Your task to perform on an android device: Go to internet settings Image 0: 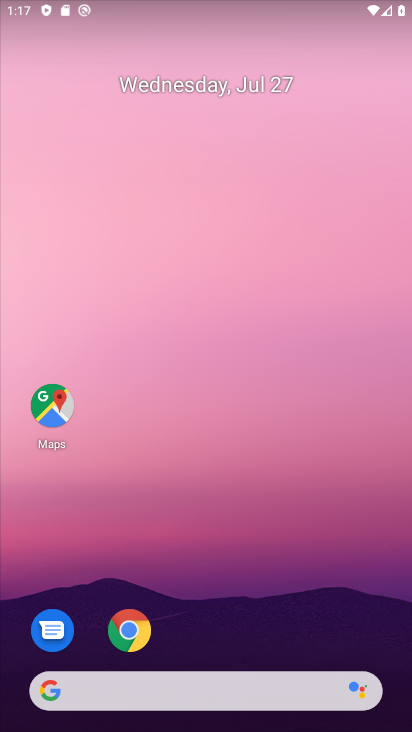
Step 0: drag from (193, 678) to (215, 6)
Your task to perform on an android device: Go to internet settings Image 1: 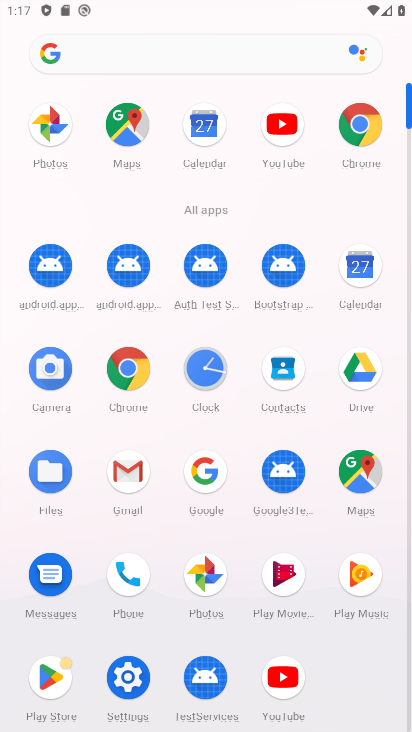
Step 1: click (130, 683)
Your task to perform on an android device: Go to internet settings Image 2: 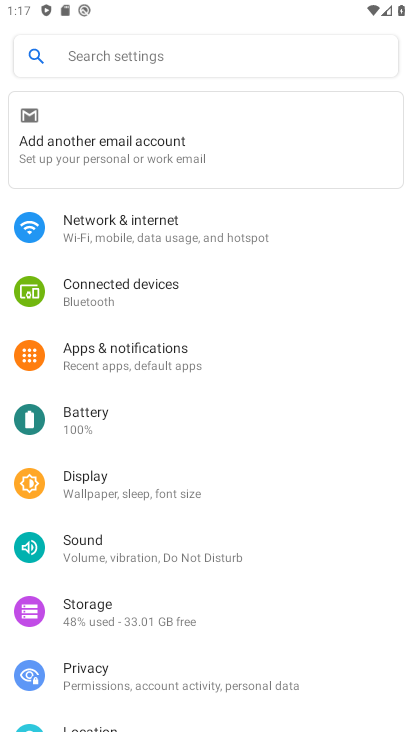
Step 2: click (111, 243)
Your task to perform on an android device: Go to internet settings Image 3: 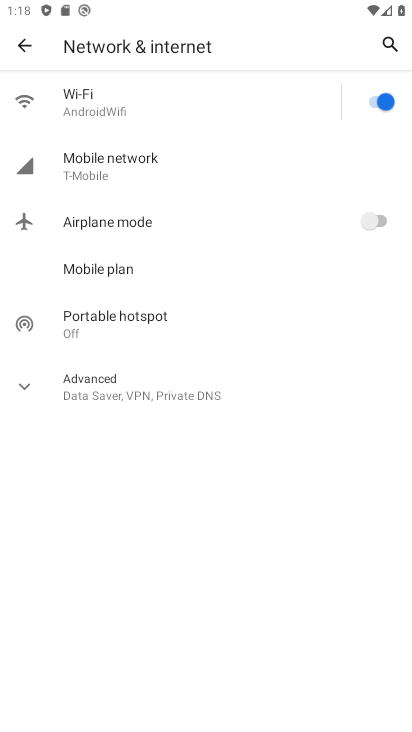
Step 3: task complete